Your task to perform on an android device: delete browsing data in the chrome app Image 0: 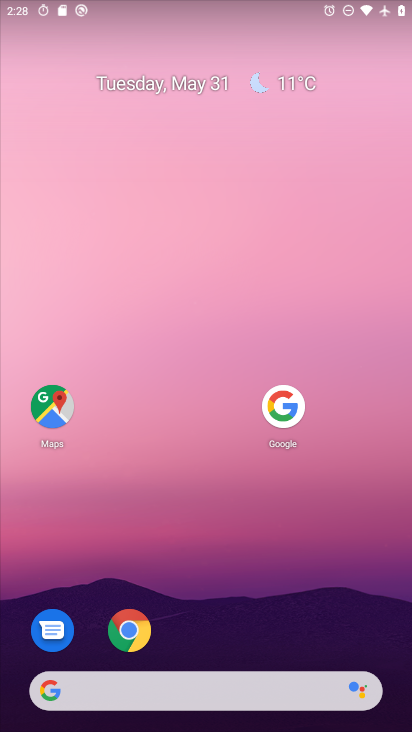
Step 0: click (135, 630)
Your task to perform on an android device: delete browsing data in the chrome app Image 1: 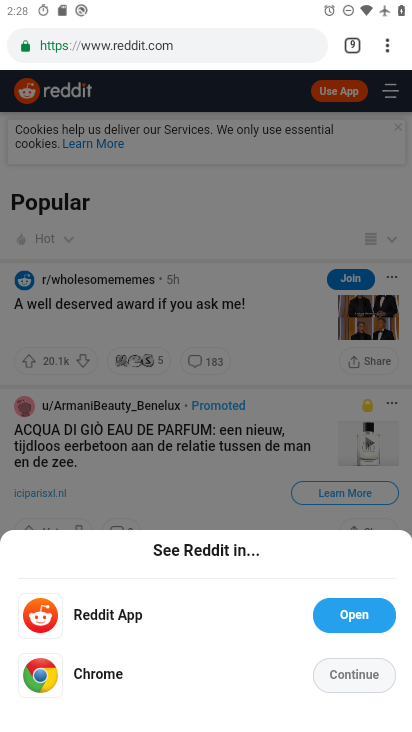
Step 1: drag from (386, 37) to (280, 600)
Your task to perform on an android device: delete browsing data in the chrome app Image 2: 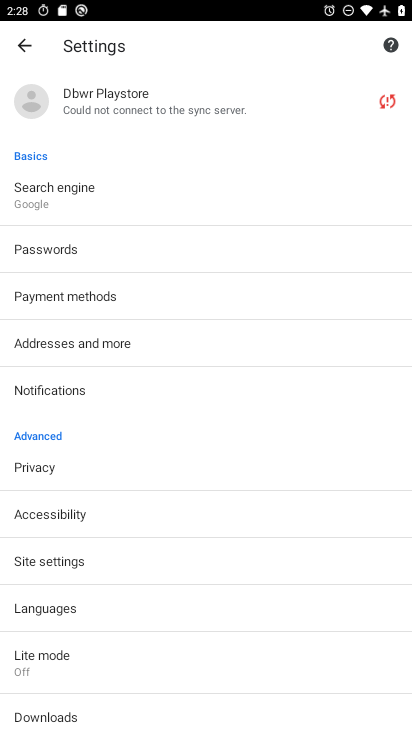
Step 2: click (45, 474)
Your task to perform on an android device: delete browsing data in the chrome app Image 3: 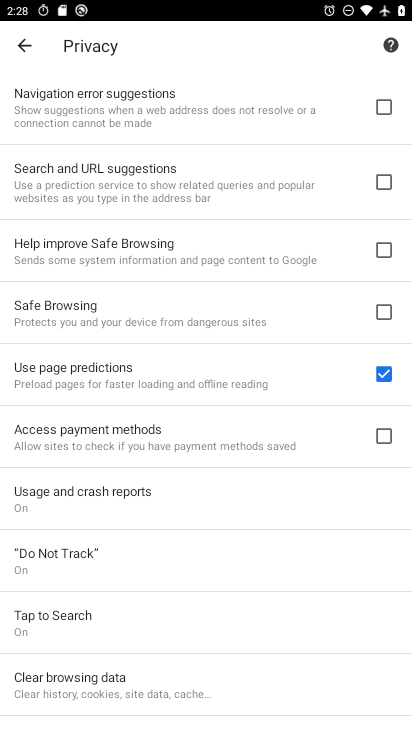
Step 3: drag from (156, 608) to (347, 108)
Your task to perform on an android device: delete browsing data in the chrome app Image 4: 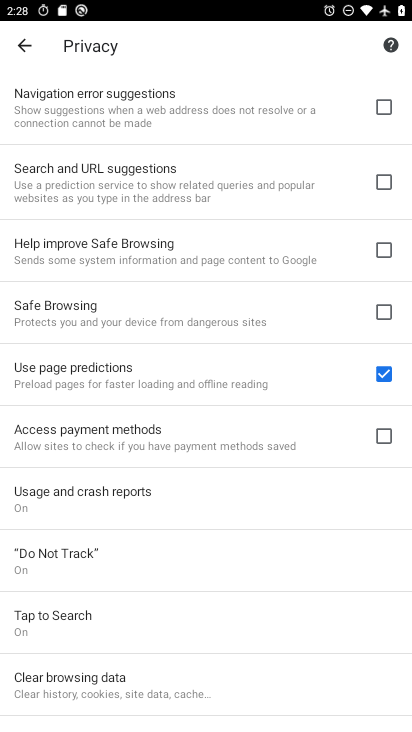
Step 4: drag from (253, 597) to (366, 107)
Your task to perform on an android device: delete browsing data in the chrome app Image 5: 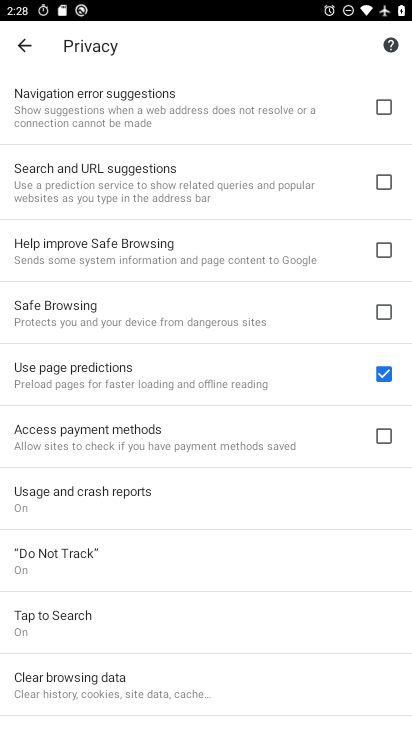
Step 5: click (115, 695)
Your task to perform on an android device: delete browsing data in the chrome app Image 6: 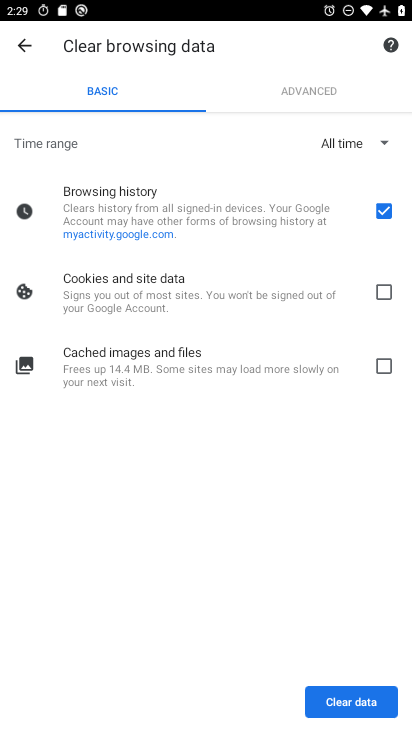
Step 6: click (381, 286)
Your task to perform on an android device: delete browsing data in the chrome app Image 7: 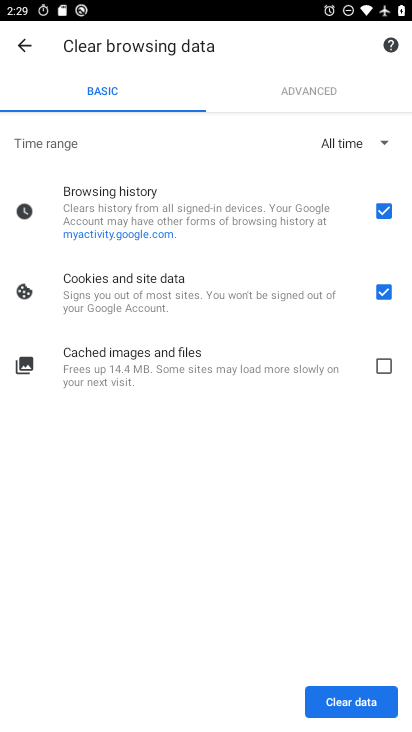
Step 7: click (385, 370)
Your task to perform on an android device: delete browsing data in the chrome app Image 8: 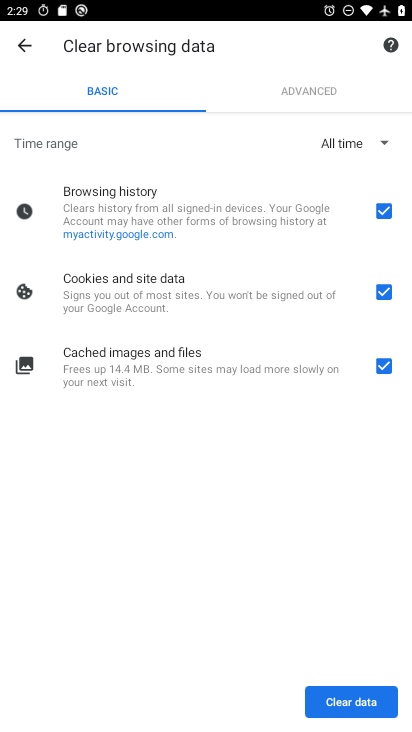
Step 8: click (326, 692)
Your task to perform on an android device: delete browsing data in the chrome app Image 9: 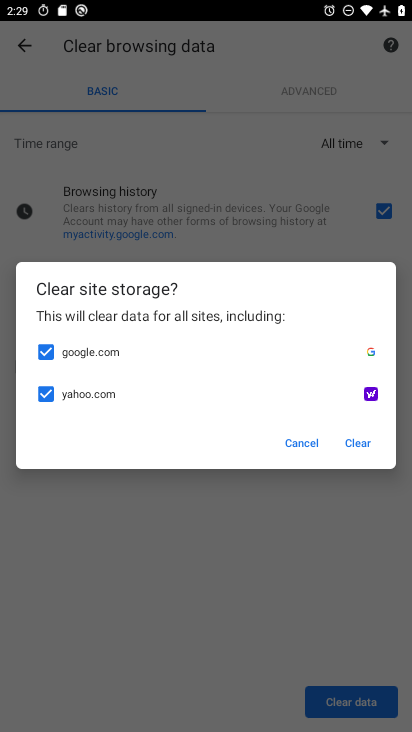
Step 9: click (365, 448)
Your task to perform on an android device: delete browsing data in the chrome app Image 10: 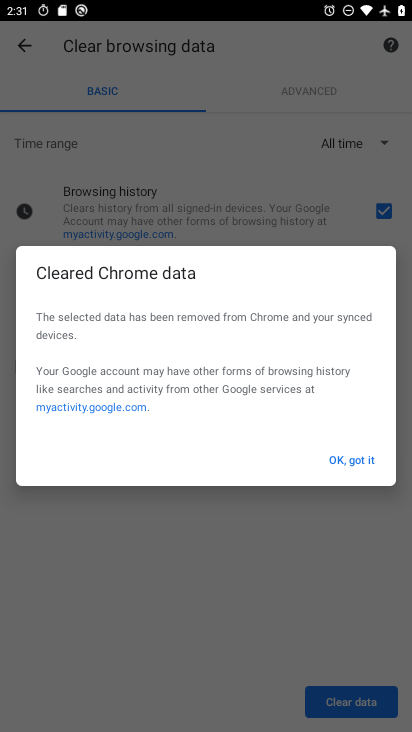
Step 10: click (348, 467)
Your task to perform on an android device: delete browsing data in the chrome app Image 11: 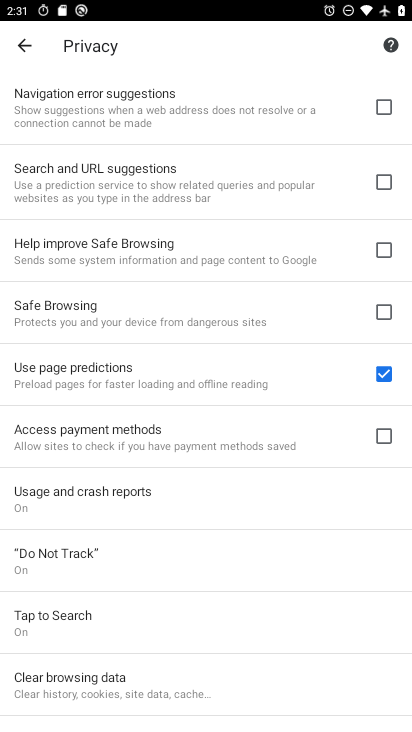
Step 11: task complete